Your task to perform on an android device: change your default location settings in chrome Image 0: 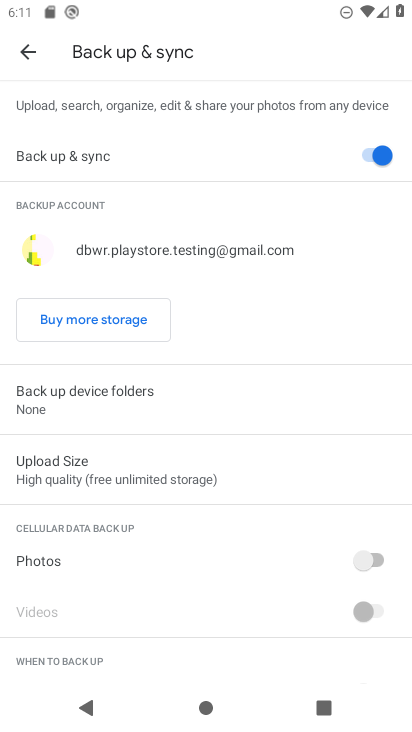
Step 0: press home button
Your task to perform on an android device: change your default location settings in chrome Image 1: 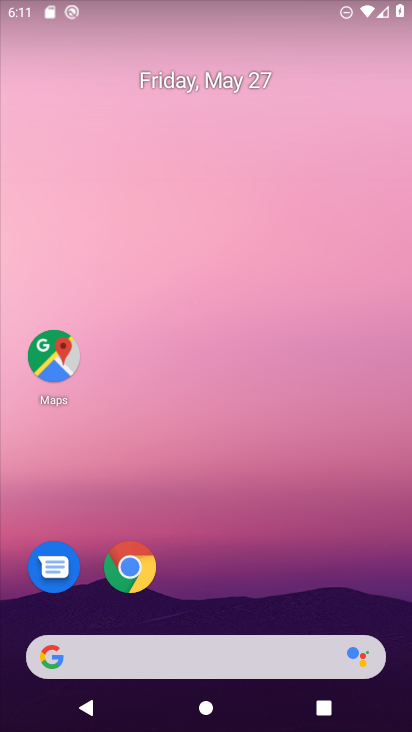
Step 1: click (130, 567)
Your task to perform on an android device: change your default location settings in chrome Image 2: 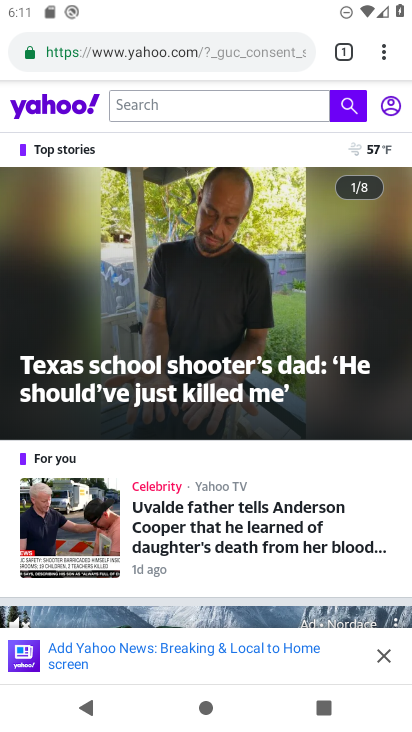
Step 2: click (382, 60)
Your task to perform on an android device: change your default location settings in chrome Image 3: 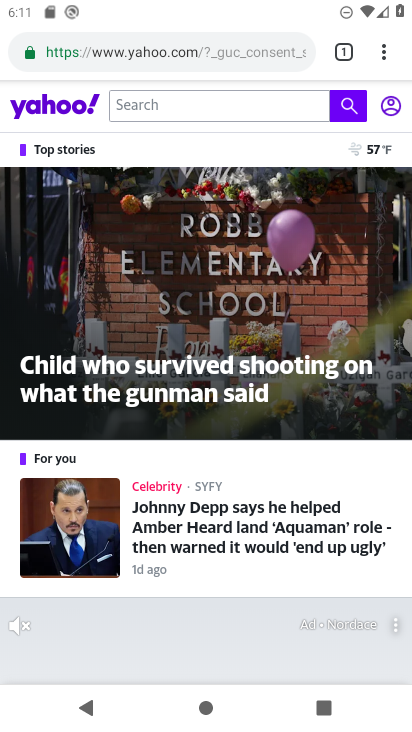
Step 3: click (383, 51)
Your task to perform on an android device: change your default location settings in chrome Image 4: 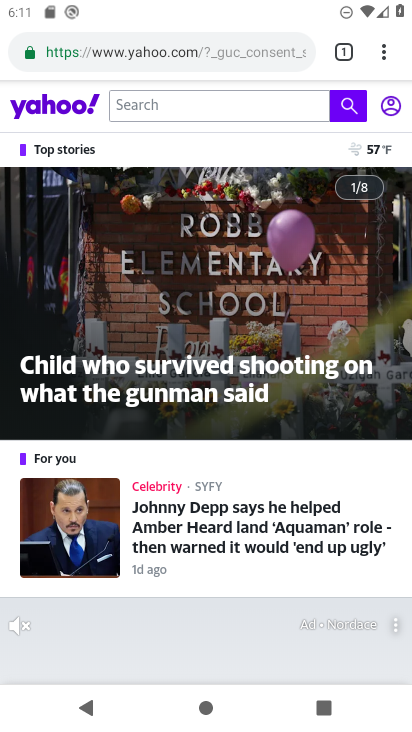
Step 4: click (395, 58)
Your task to perform on an android device: change your default location settings in chrome Image 5: 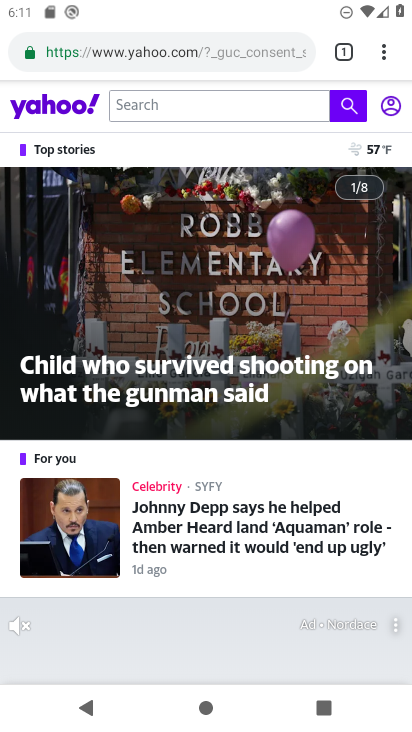
Step 5: click (384, 56)
Your task to perform on an android device: change your default location settings in chrome Image 6: 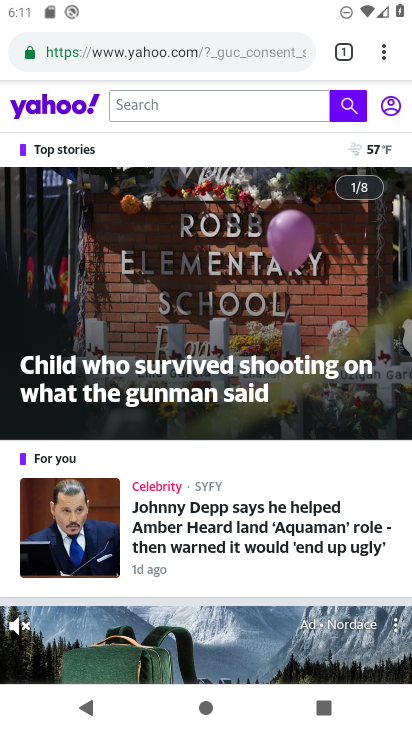
Step 6: click (386, 51)
Your task to perform on an android device: change your default location settings in chrome Image 7: 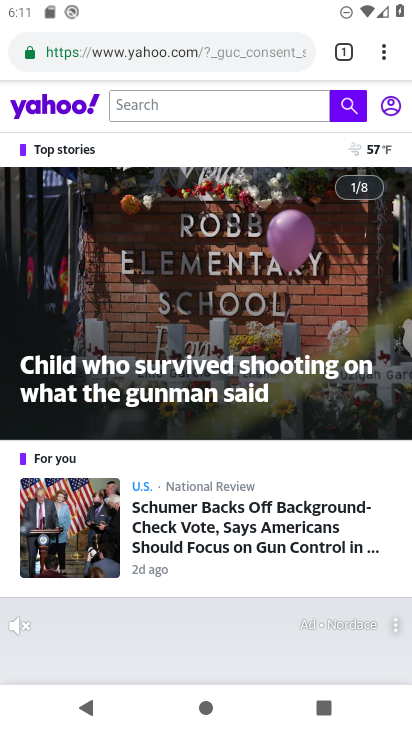
Step 7: click (380, 58)
Your task to perform on an android device: change your default location settings in chrome Image 8: 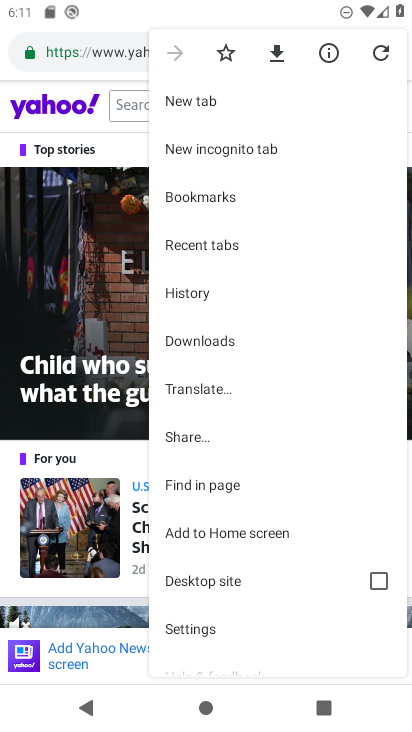
Step 8: click (193, 622)
Your task to perform on an android device: change your default location settings in chrome Image 9: 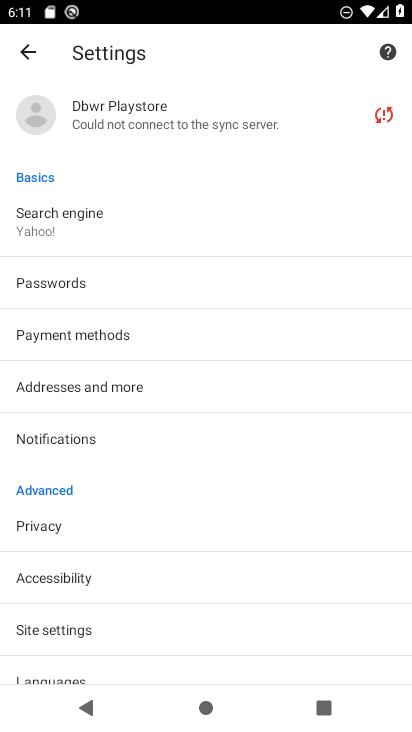
Step 9: drag from (123, 617) to (127, 230)
Your task to perform on an android device: change your default location settings in chrome Image 10: 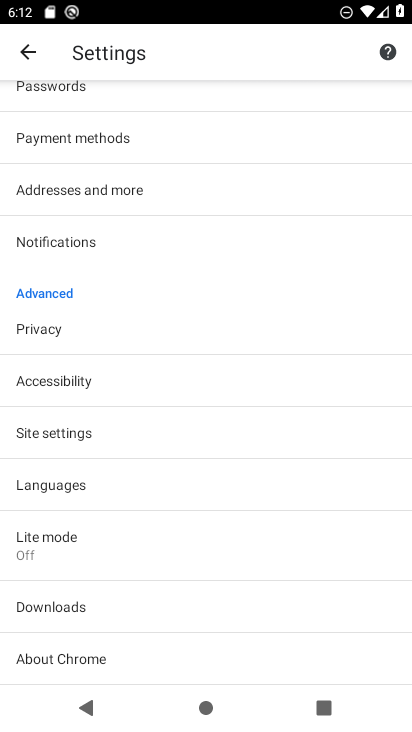
Step 10: click (51, 439)
Your task to perform on an android device: change your default location settings in chrome Image 11: 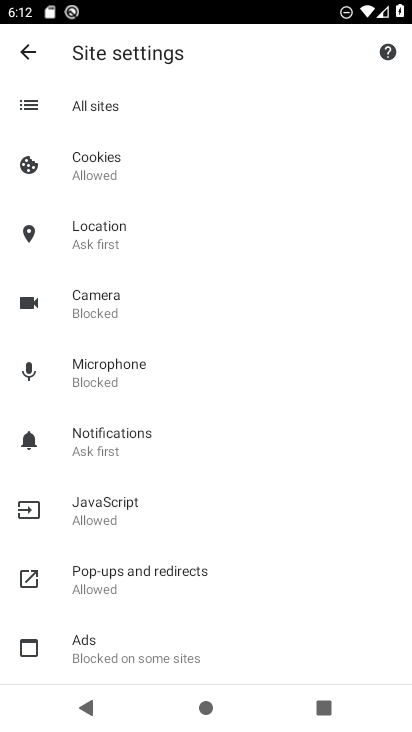
Step 11: click (91, 252)
Your task to perform on an android device: change your default location settings in chrome Image 12: 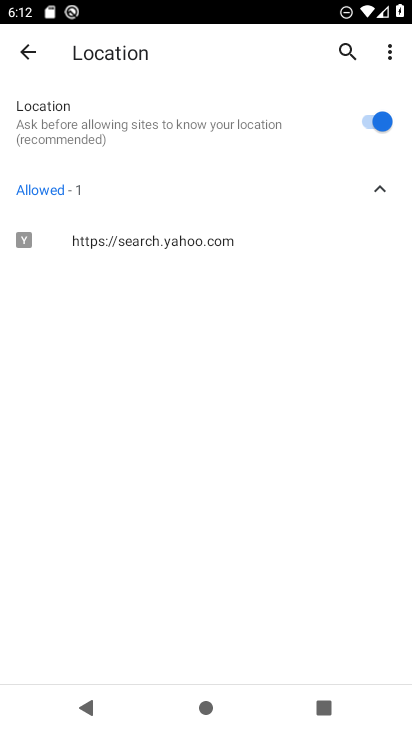
Step 12: click (367, 129)
Your task to perform on an android device: change your default location settings in chrome Image 13: 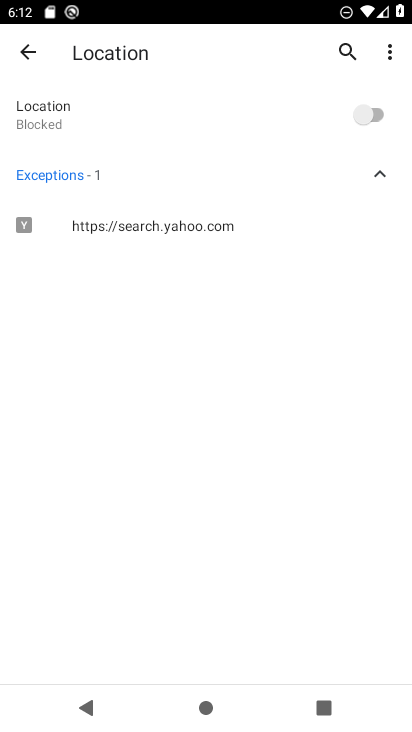
Step 13: task complete